Your task to perform on an android device: Search for vegetarian restaurants on Maps Image 0: 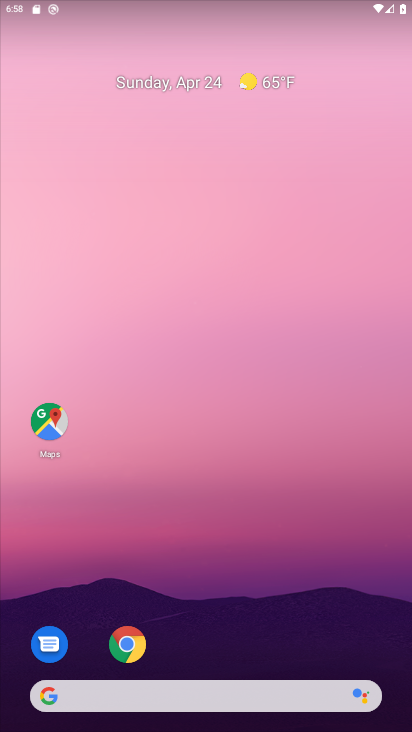
Step 0: press home button
Your task to perform on an android device: Search for vegetarian restaurants on Maps Image 1: 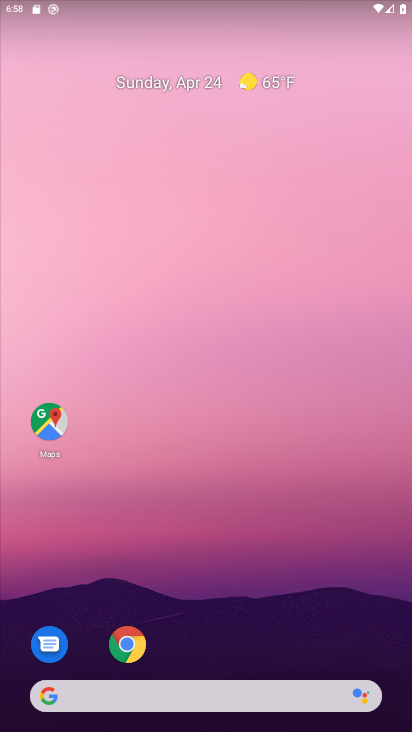
Step 1: click (48, 420)
Your task to perform on an android device: Search for vegetarian restaurants on Maps Image 2: 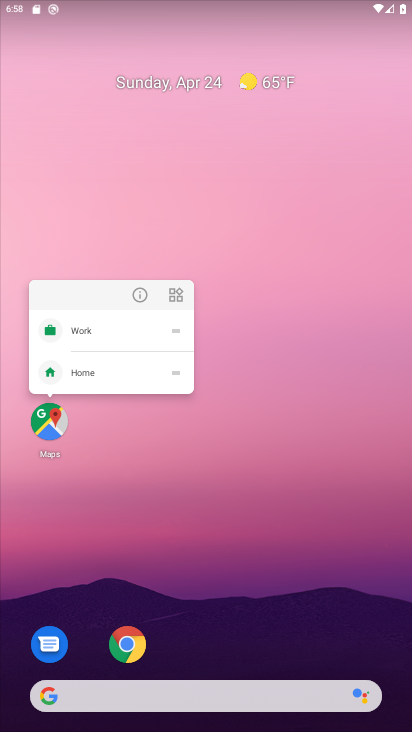
Step 2: click (49, 418)
Your task to perform on an android device: Search for vegetarian restaurants on Maps Image 3: 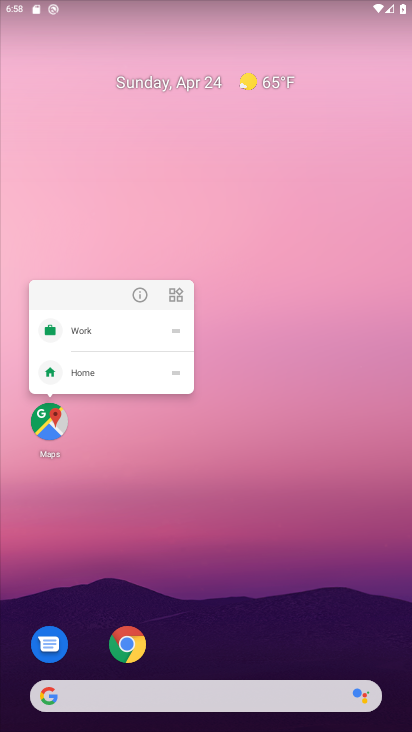
Step 3: click (49, 418)
Your task to perform on an android device: Search for vegetarian restaurants on Maps Image 4: 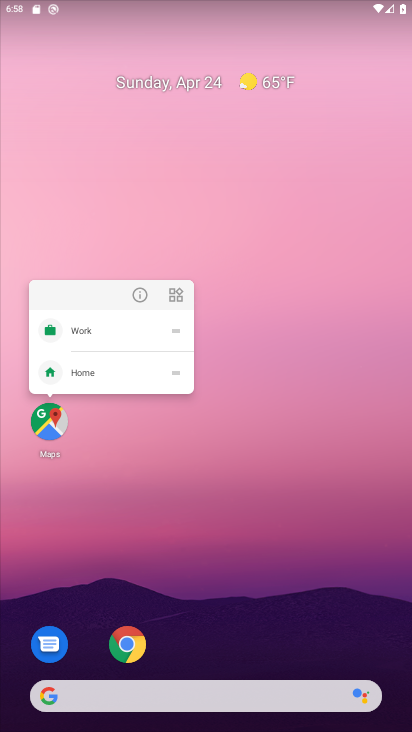
Step 4: click (99, 451)
Your task to perform on an android device: Search for vegetarian restaurants on Maps Image 5: 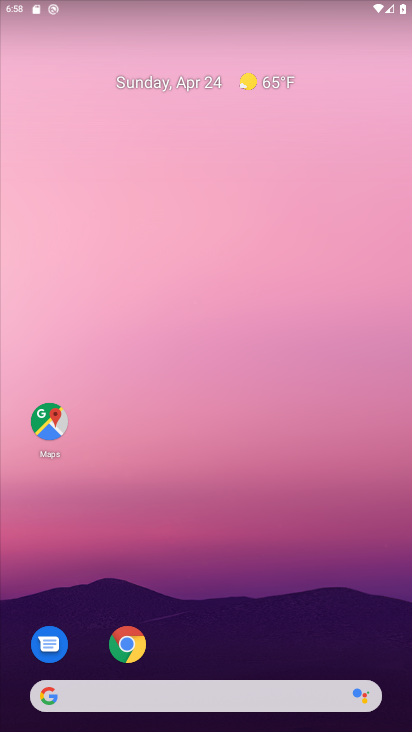
Step 5: click (70, 516)
Your task to perform on an android device: Search for vegetarian restaurants on Maps Image 6: 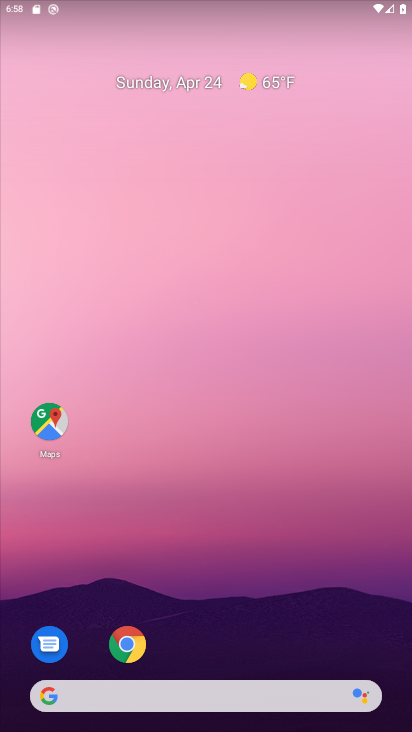
Step 6: click (46, 419)
Your task to perform on an android device: Search for vegetarian restaurants on Maps Image 7: 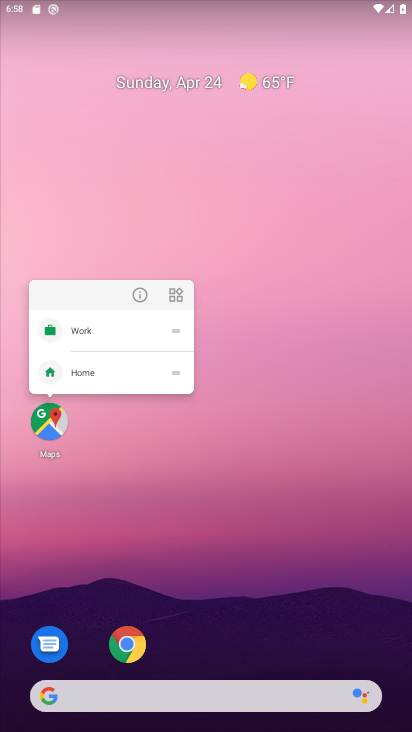
Step 7: click (102, 439)
Your task to perform on an android device: Search for vegetarian restaurants on Maps Image 8: 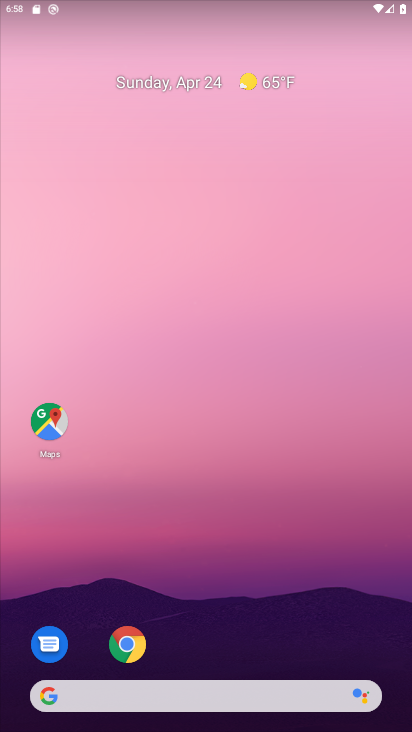
Step 8: click (51, 416)
Your task to perform on an android device: Search for vegetarian restaurants on Maps Image 9: 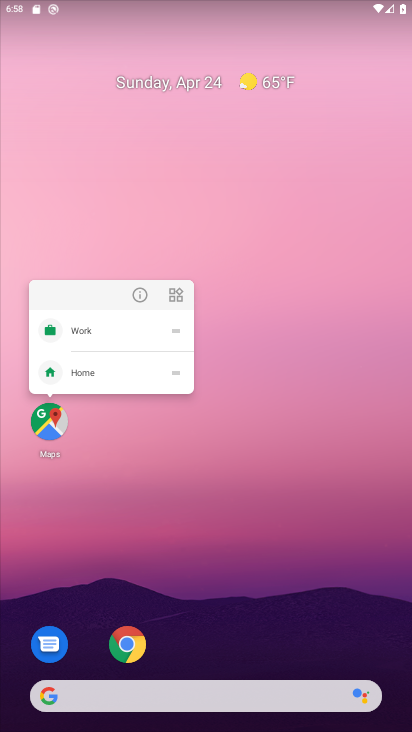
Step 9: click (132, 470)
Your task to perform on an android device: Search for vegetarian restaurants on Maps Image 10: 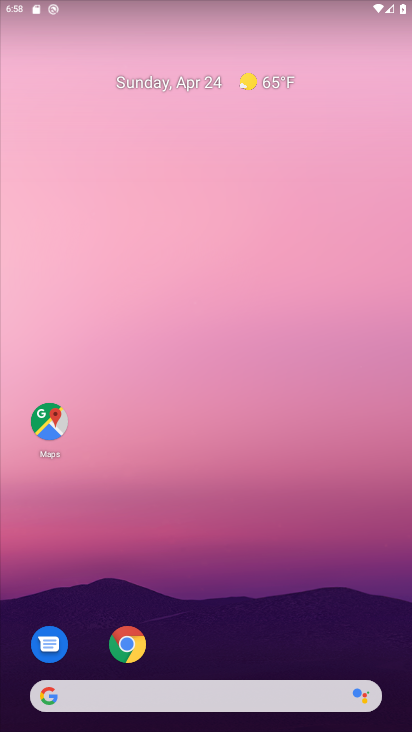
Step 10: drag from (231, 635) to (240, 133)
Your task to perform on an android device: Search for vegetarian restaurants on Maps Image 11: 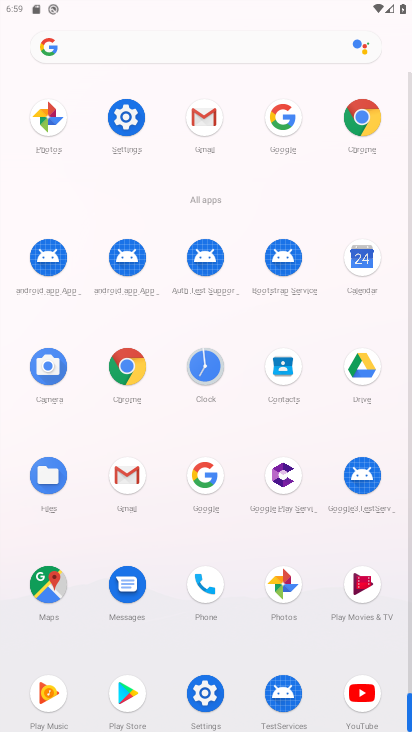
Step 11: click (48, 580)
Your task to perform on an android device: Search for vegetarian restaurants on Maps Image 12: 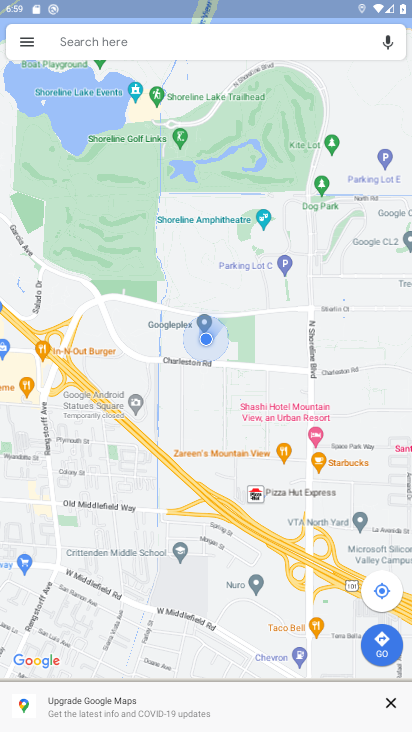
Step 12: click (24, 36)
Your task to perform on an android device: Search for vegetarian restaurants on Maps Image 13: 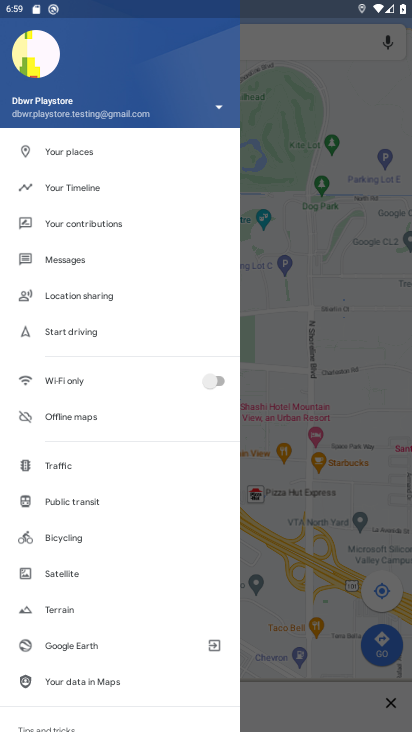
Step 13: click (336, 304)
Your task to perform on an android device: Search for vegetarian restaurants on Maps Image 14: 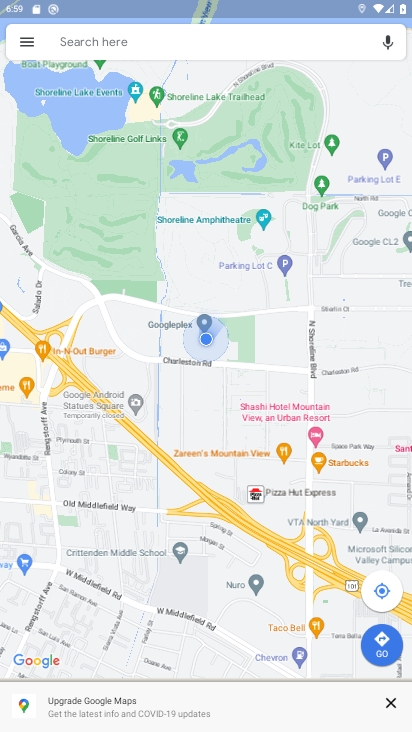
Step 14: click (126, 38)
Your task to perform on an android device: Search for vegetarian restaurants on Maps Image 15: 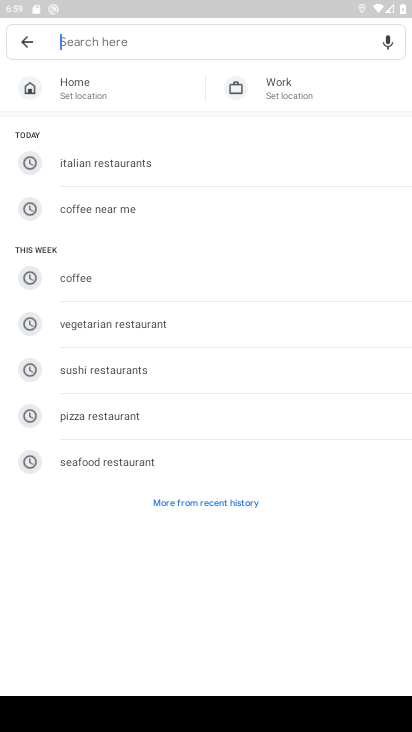
Step 15: click (127, 332)
Your task to perform on an android device: Search for vegetarian restaurants on Maps Image 16: 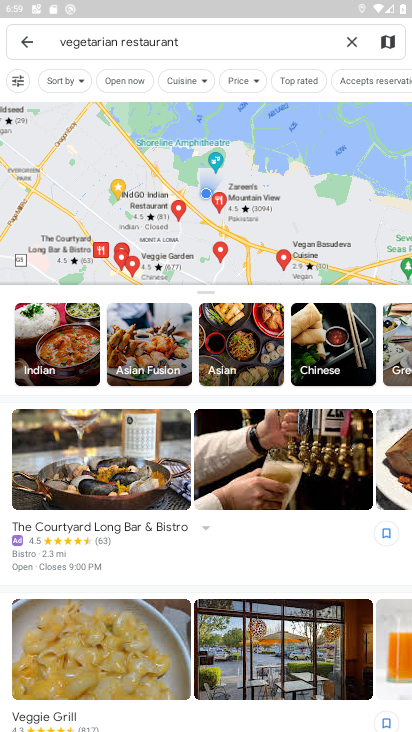
Step 16: task complete